Your task to perform on an android device: Toggle the flashlight Image 0: 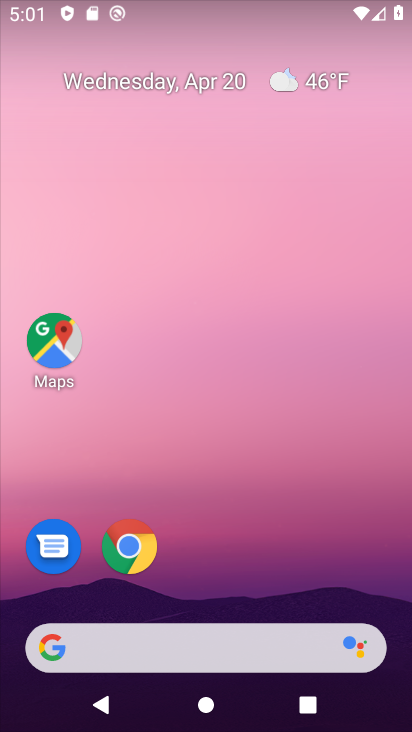
Step 0: drag from (293, 501) to (245, 0)
Your task to perform on an android device: Toggle the flashlight Image 1: 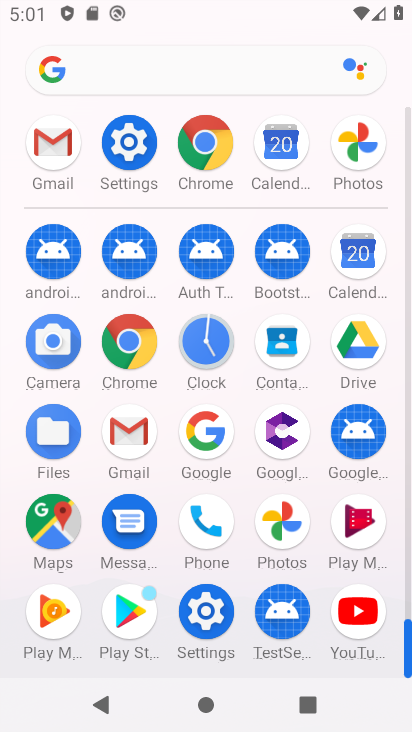
Step 1: click (136, 127)
Your task to perform on an android device: Toggle the flashlight Image 2: 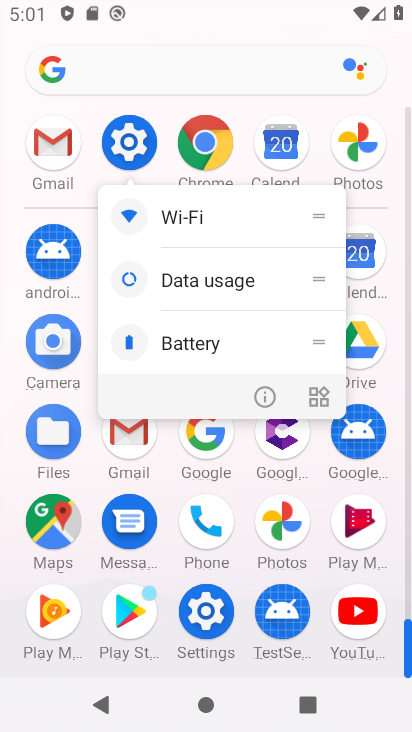
Step 2: click (132, 128)
Your task to perform on an android device: Toggle the flashlight Image 3: 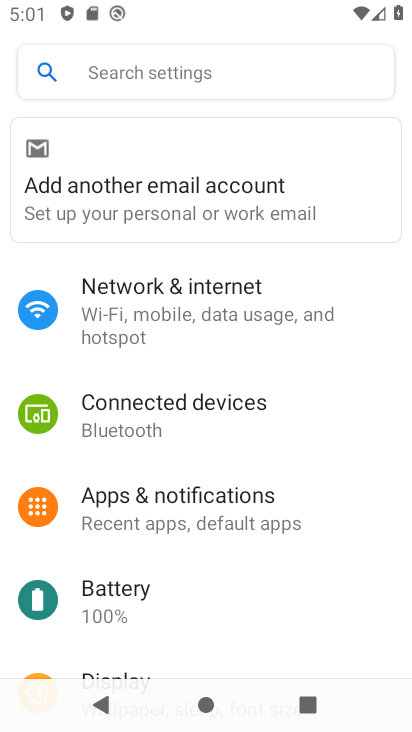
Step 3: task complete